Your task to perform on an android device: Go to network settings Image 0: 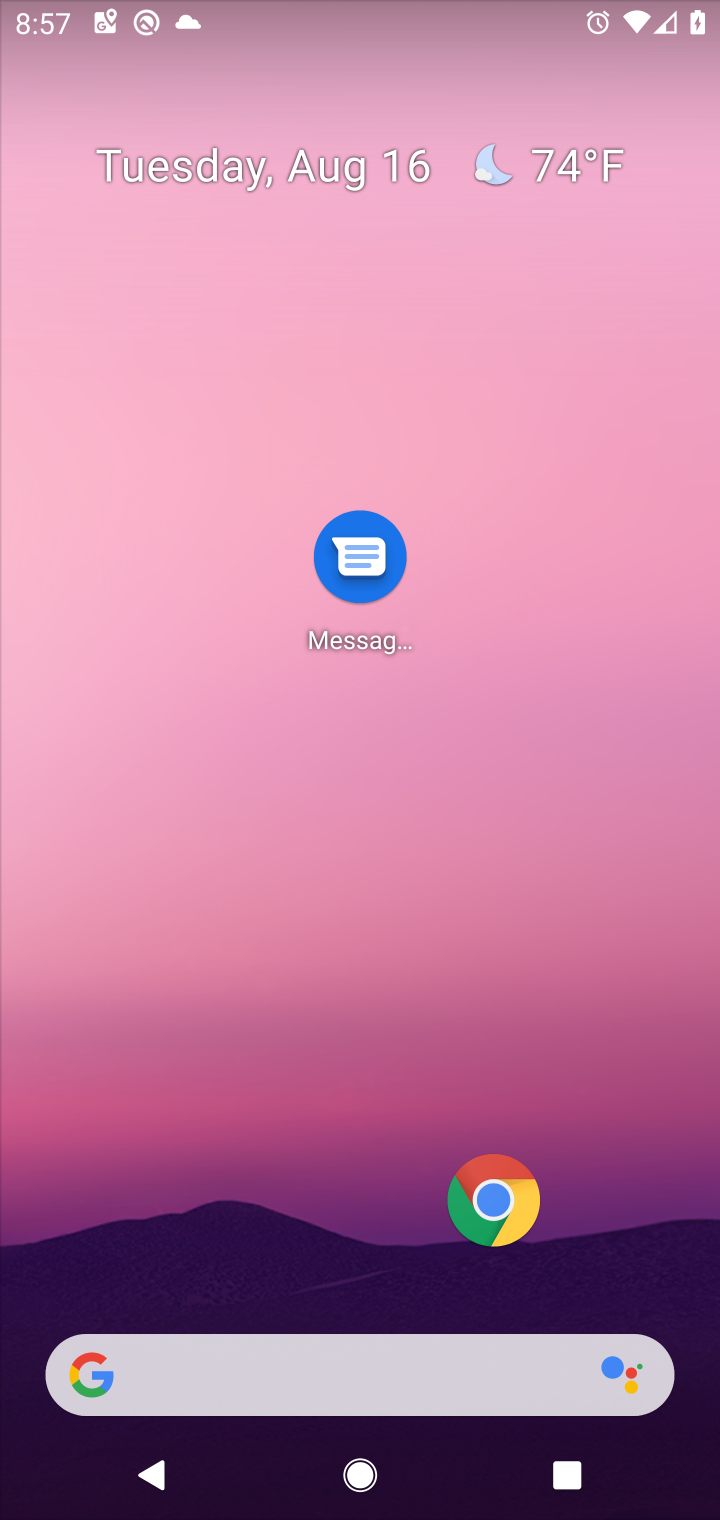
Step 0: drag from (103, 1310) to (290, 502)
Your task to perform on an android device: Go to network settings Image 1: 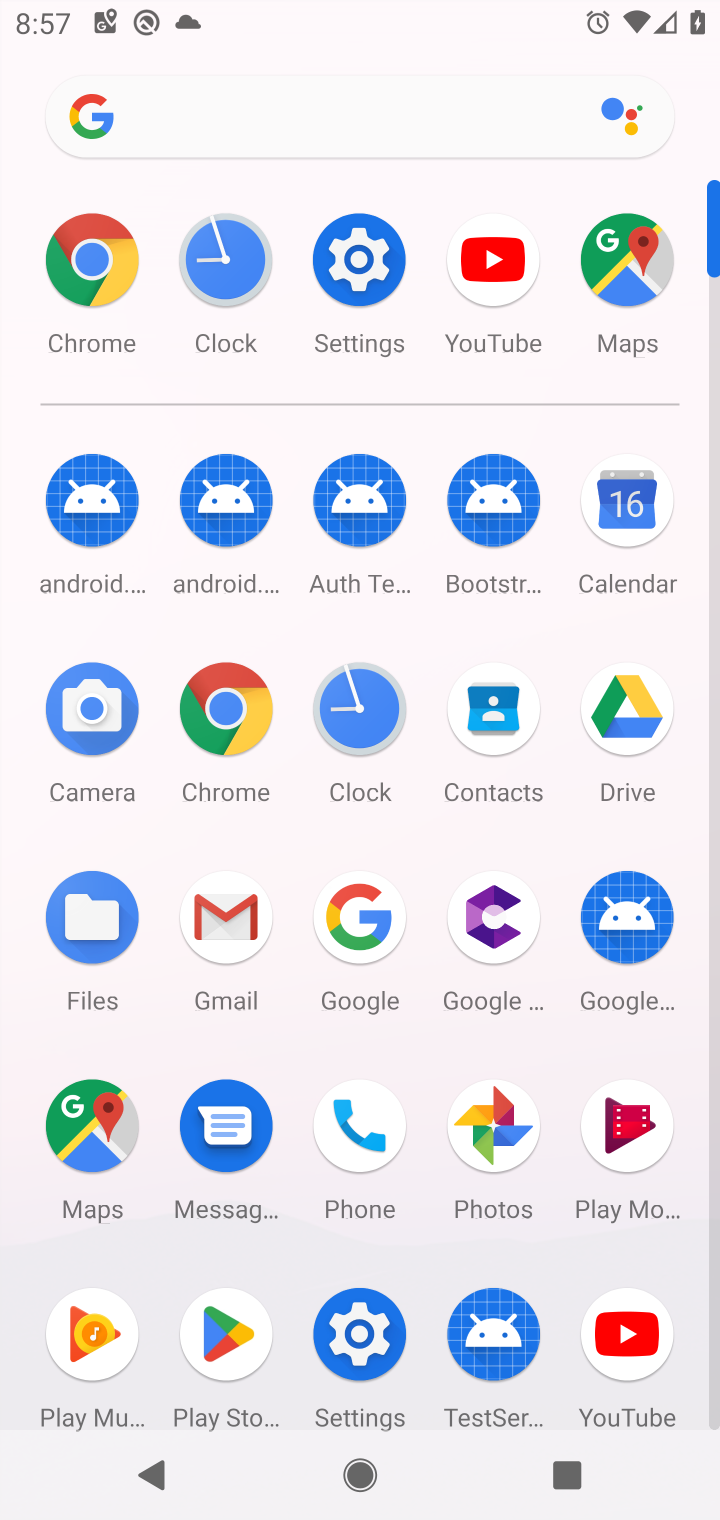
Step 1: click (357, 1315)
Your task to perform on an android device: Go to network settings Image 2: 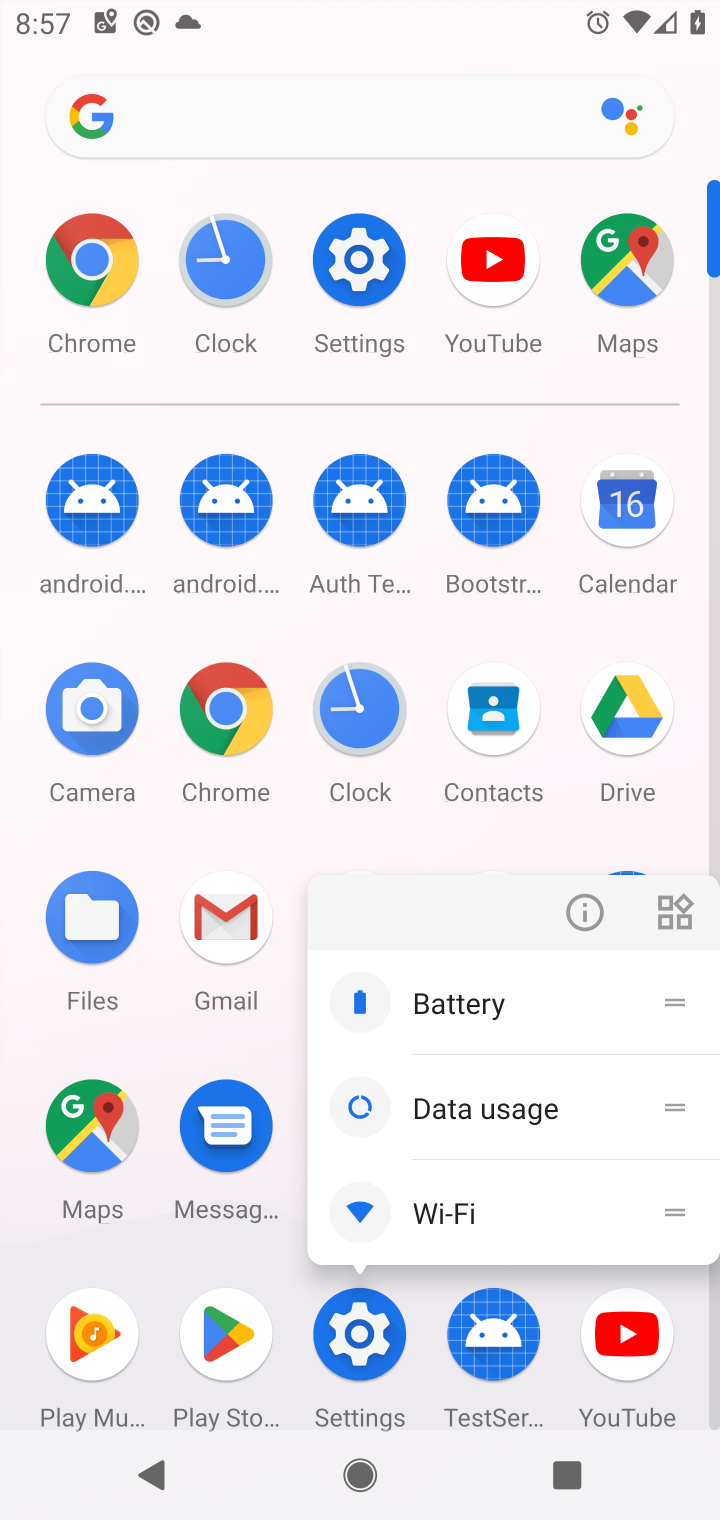
Step 2: click (357, 1315)
Your task to perform on an android device: Go to network settings Image 3: 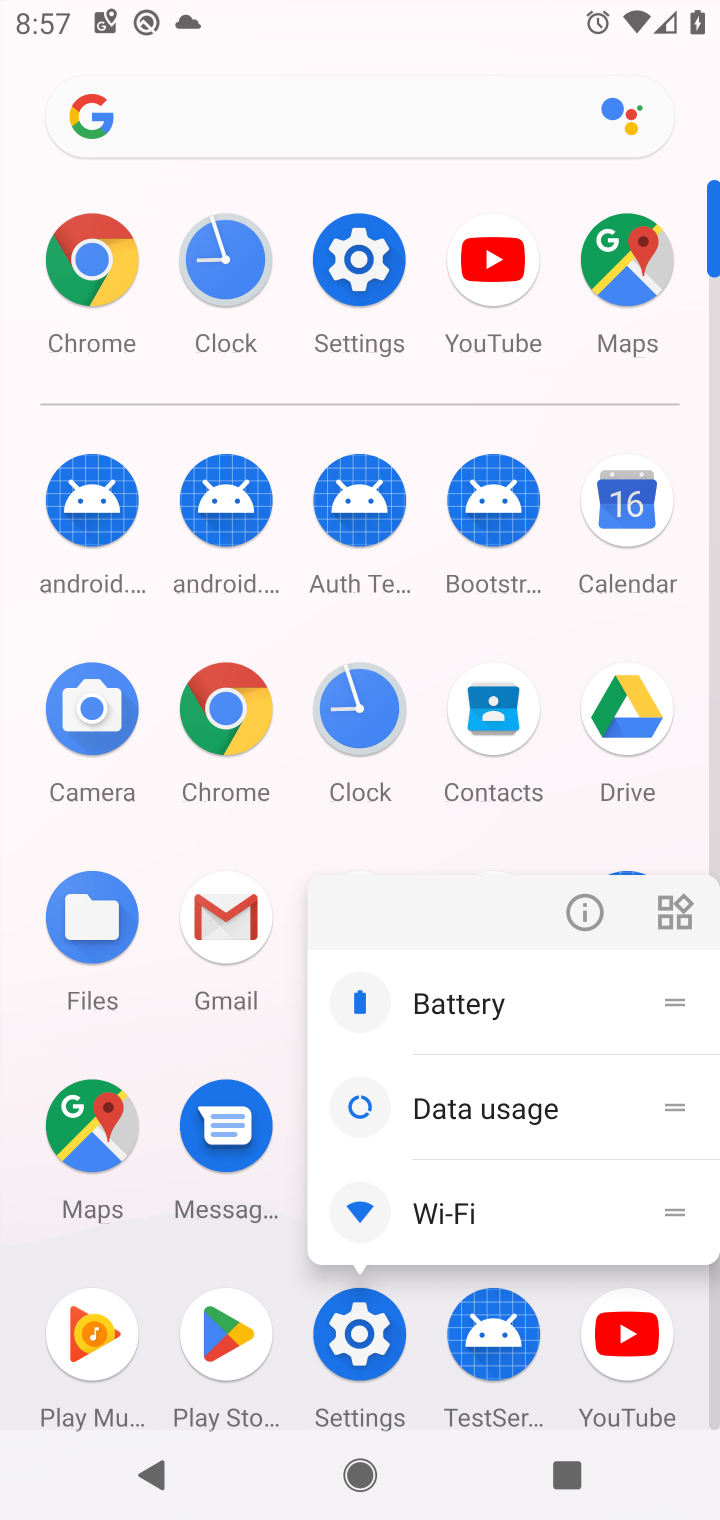
Step 3: click (353, 1346)
Your task to perform on an android device: Go to network settings Image 4: 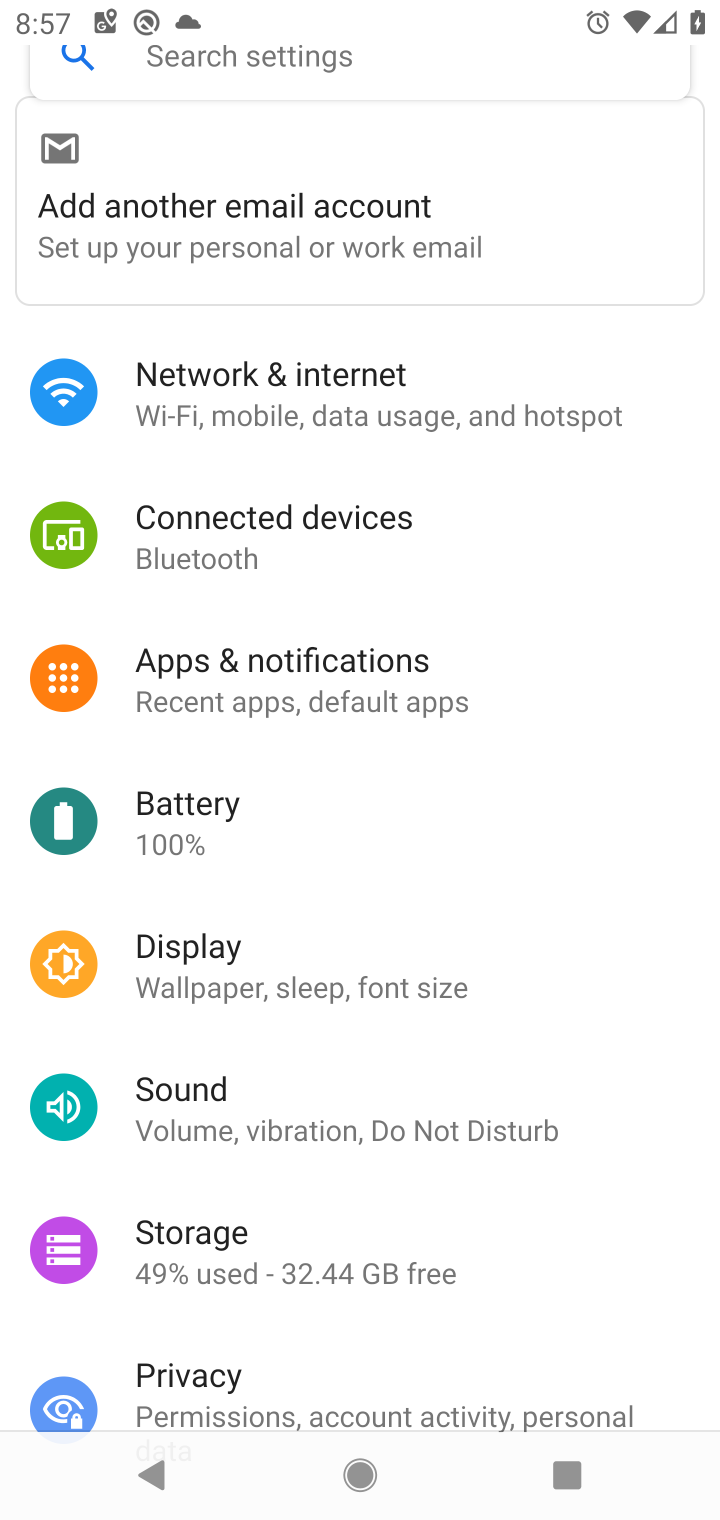
Step 4: click (307, 366)
Your task to perform on an android device: Go to network settings Image 5: 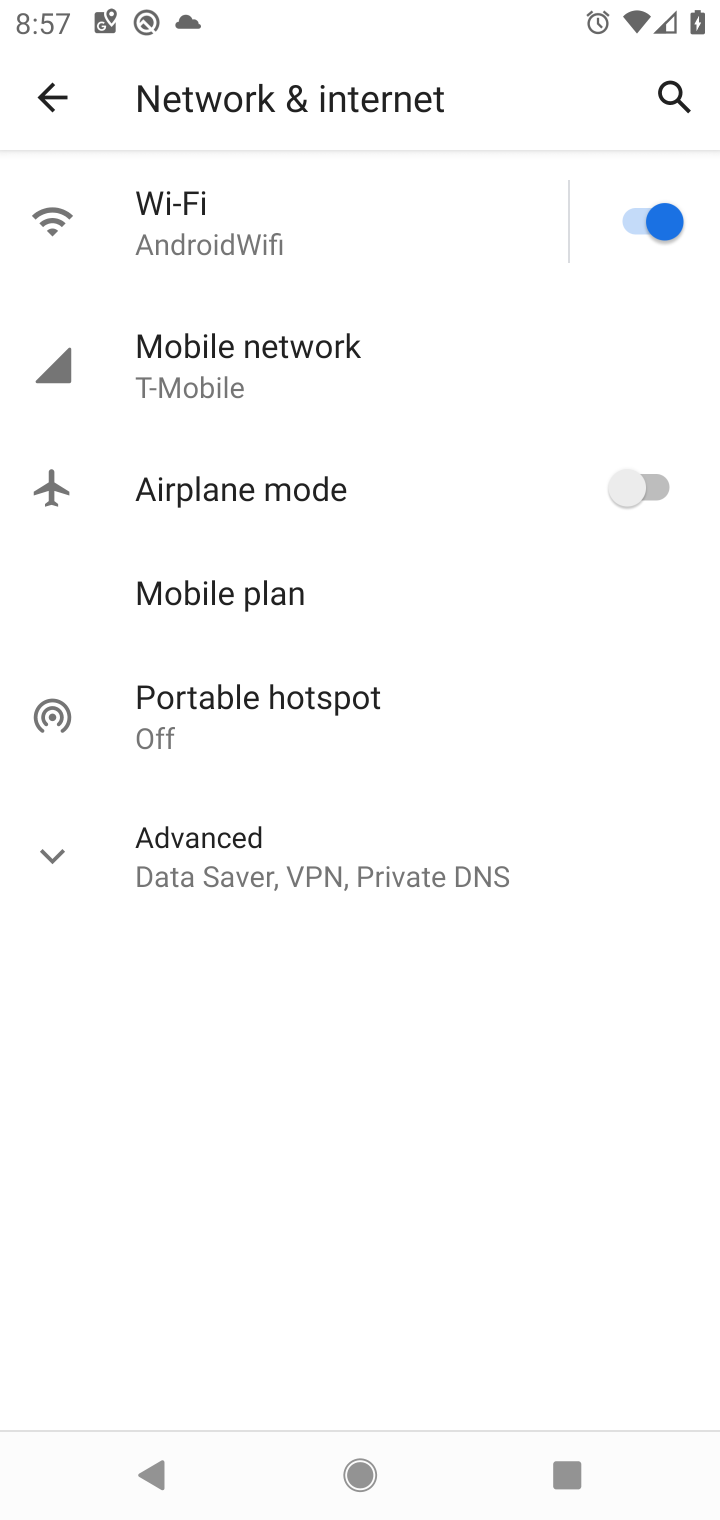
Step 5: click (264, 368)
Your task to perform on an android device: Go to network settings Image 6: 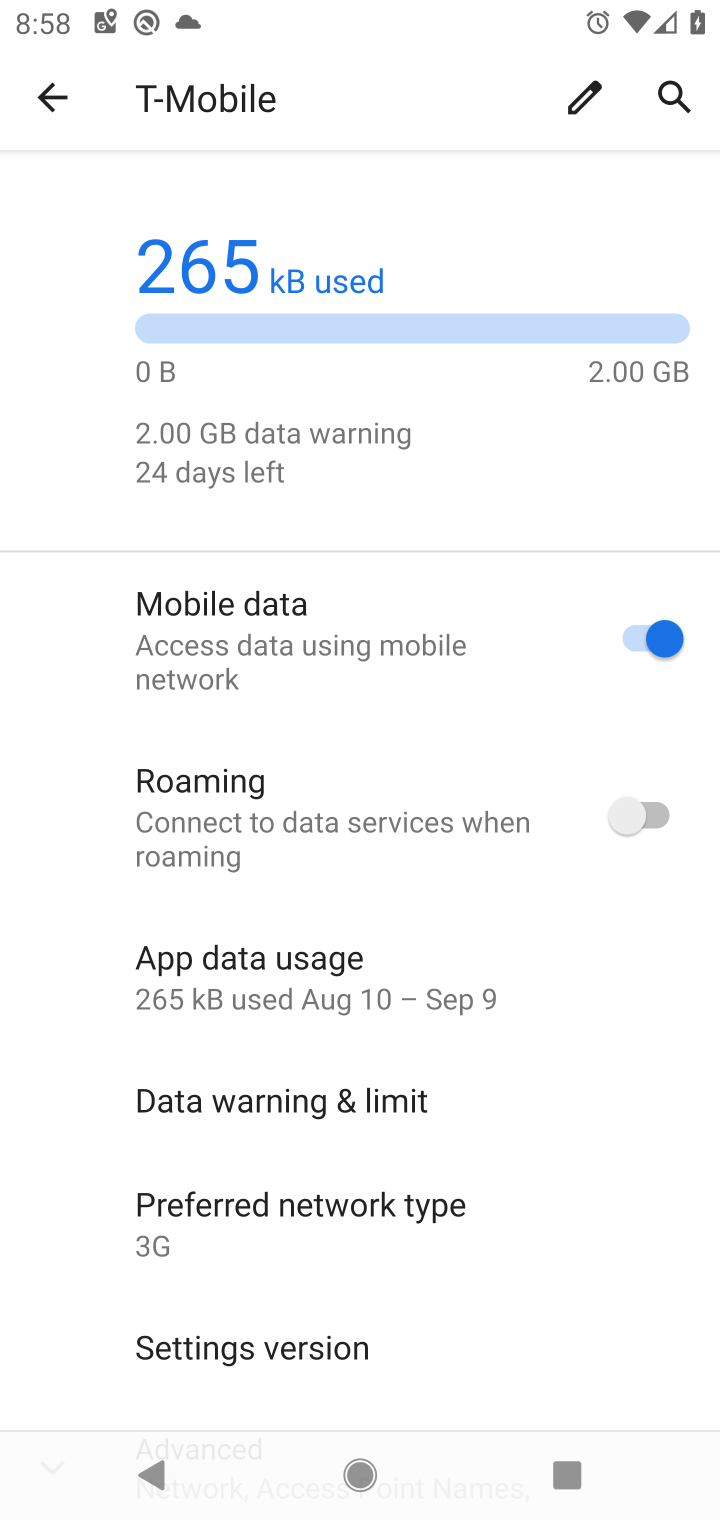
Step 6: task complete